Your task to perform on an android device: Open privacy settings Image 0: 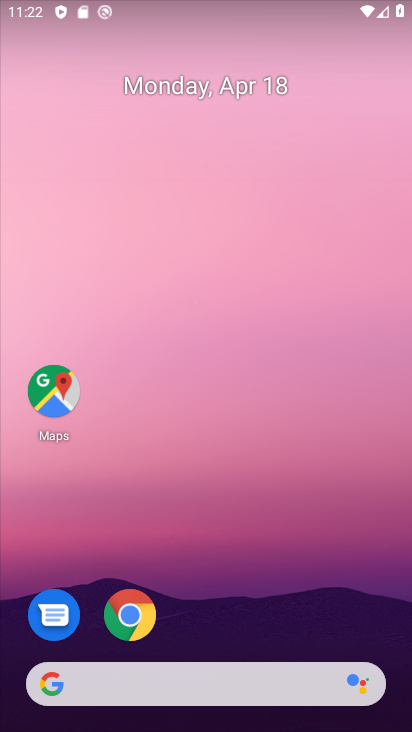
Step 0: click (126, 610)
Your task to perform on an android device: Open privacy settings Image 1: 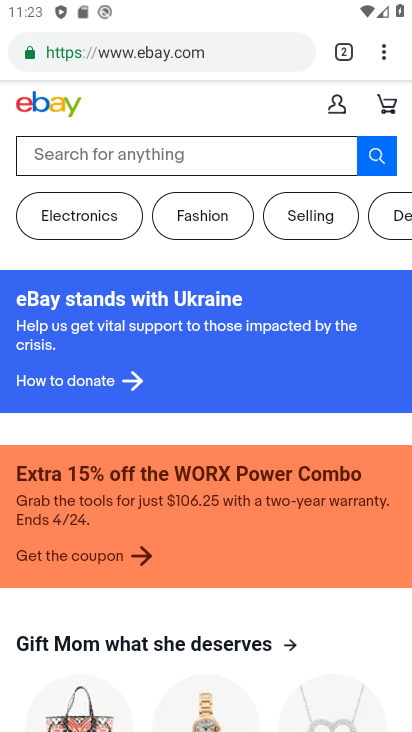
Step 1: press back button
Your task to perform on an android device: Open privacy settings Image 2: 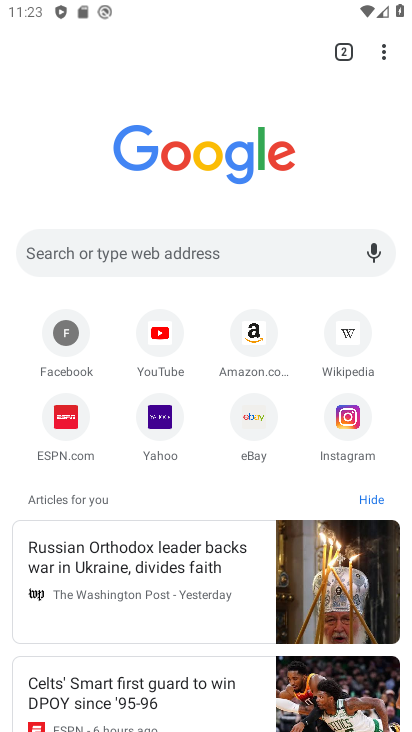
Step 2: press back button
Your task to perform on an android device: Open privacy settings Image 3: 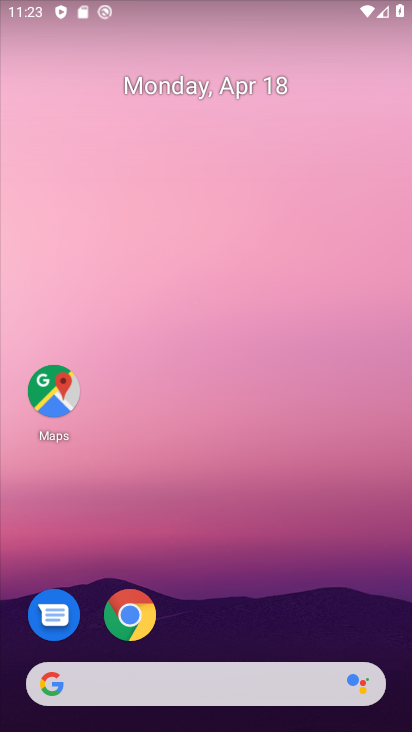
Step 3: drag from (201, 632) to (193, 1)
Your task to perform on an android device: Open privacy settings Image 4: 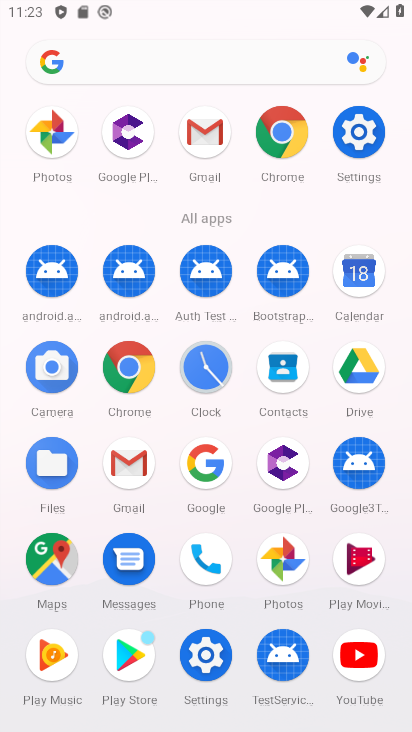
Step 4: click (363, 131)
Your task to perform on an android device: Open privacy settings Image 5: 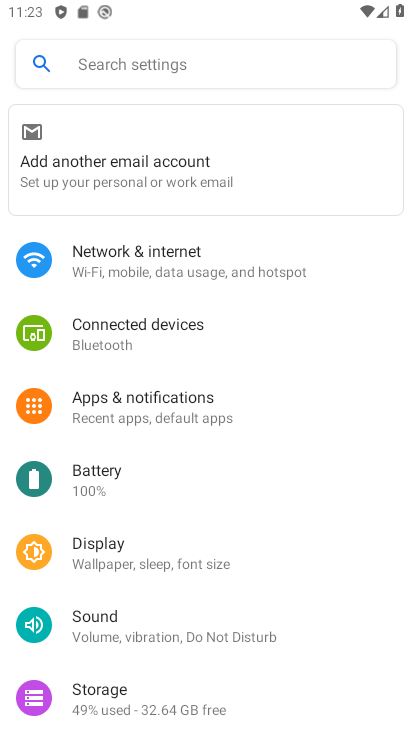
Step 5: drag from (150, 661) to (151, 227)
Your task to perform on an android device: Open privacy settings Image 6: 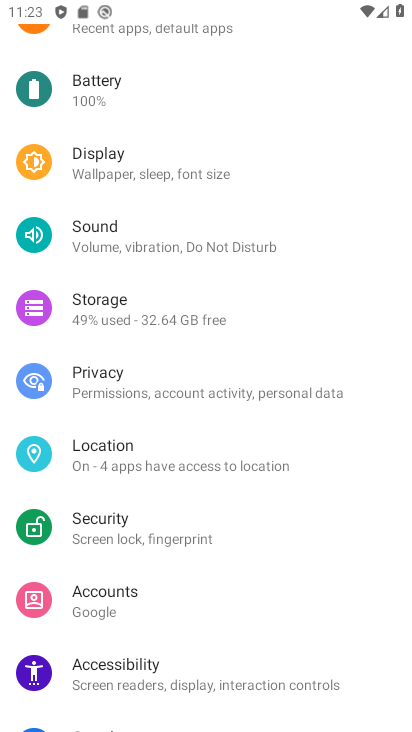
Step 6: click (98, 384)
Your task to perform on an android device: Open privacy settings Image 7: 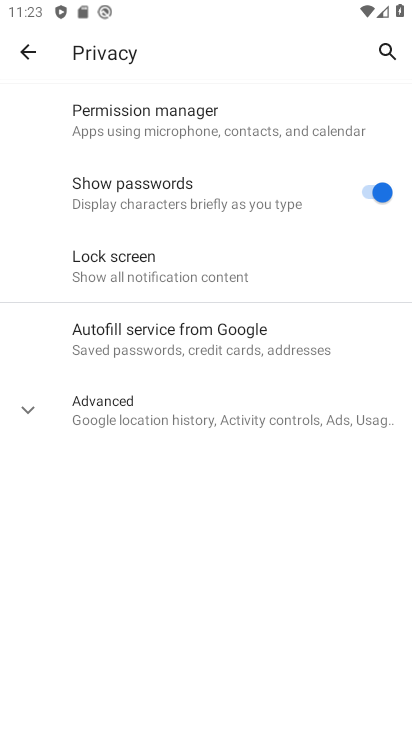
Step 7: task complete